Your task to perform on an android device: Turn off the flashlight Image 0: 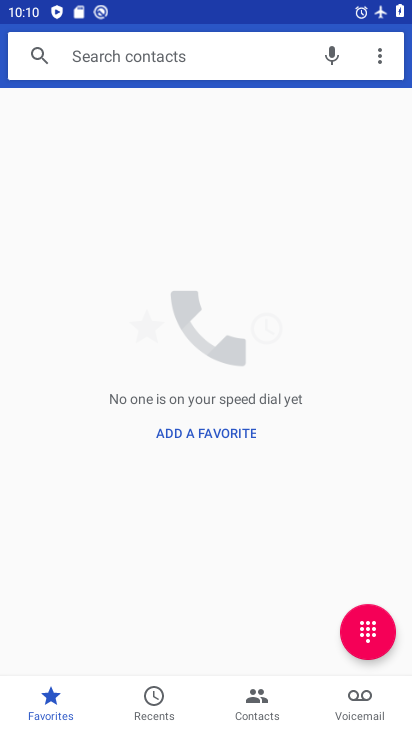
Step 0: press home button
Your task to perform on an android device: Turn off the flashlight Image 1: 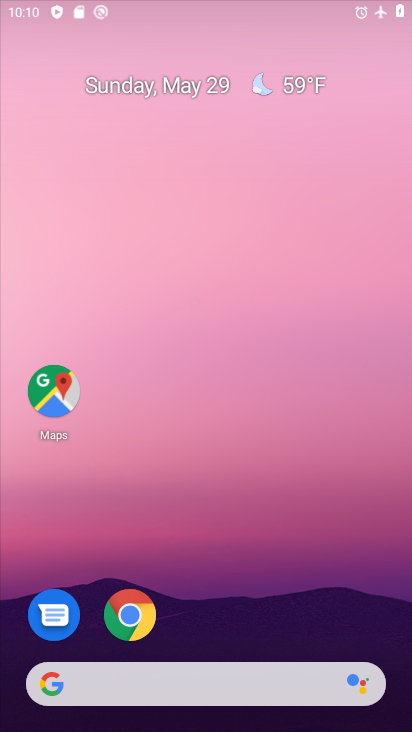
Step 1: click (210, 62)
Your task to perform on an android device: Turn off the flashlight Image 2: 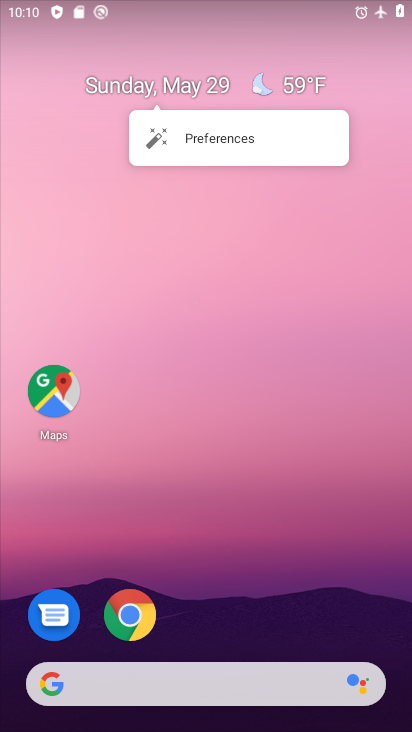
Step 2: press home button
Your task to perform on an android device: Turn off the flashlight Image 3: 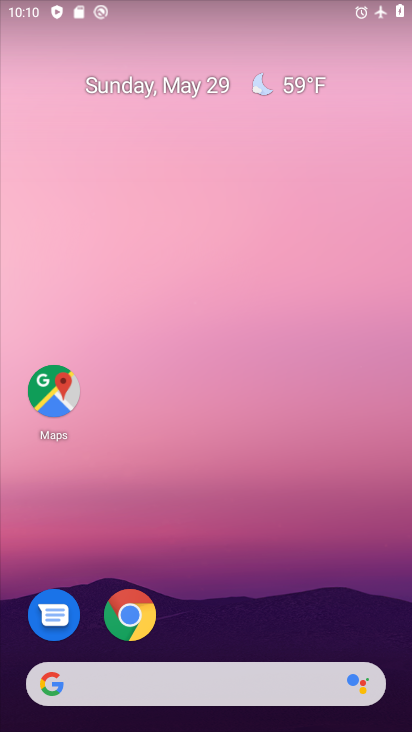
Step 3: drag from (229, 605) to (227, 49)
Your task to perform on an android device: Turn off the flashlight Image 4: 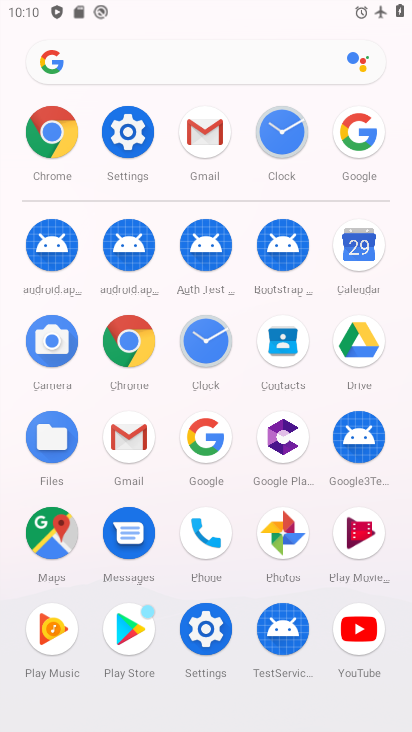
Step 4: click (127, 141)
Your task to perform on an android device: Turn off the flashlight Image 5: 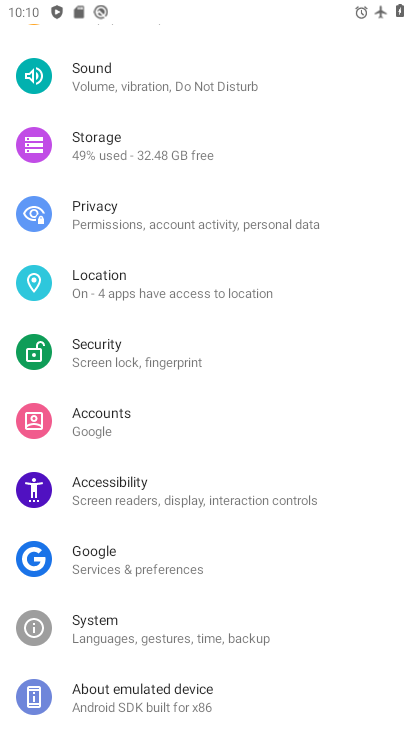
Step 5: drag from (202, 311) to (235, 425)
Your task to perform on an android device: Turn off the flashlight Image 6: 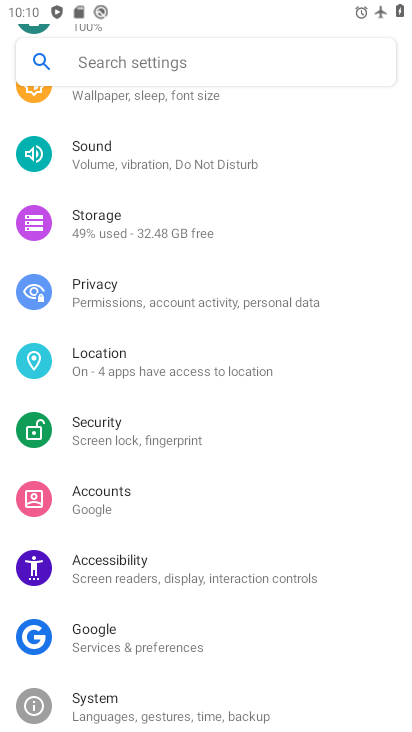
Step 6: click (161, 61)
Your task to perform on an android device: Turn off the flashlight Image 7: 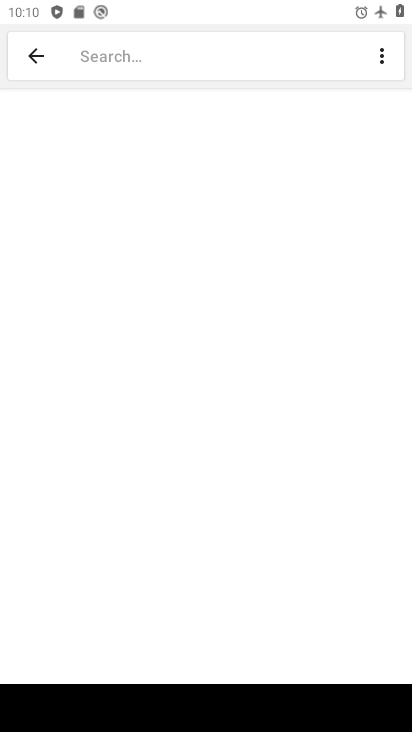
Step 7: type "flash"
Your task to perform on an android device: Turn off the flashlight Image 8: 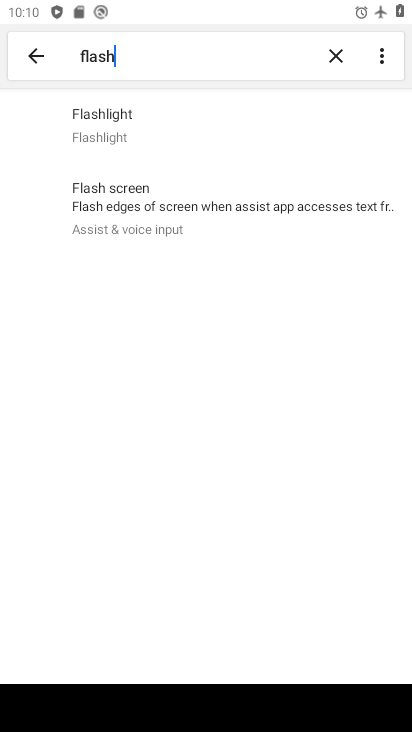
Step 8: task complete